Your task to perform on an android device: Open Reddit.com Image 0: 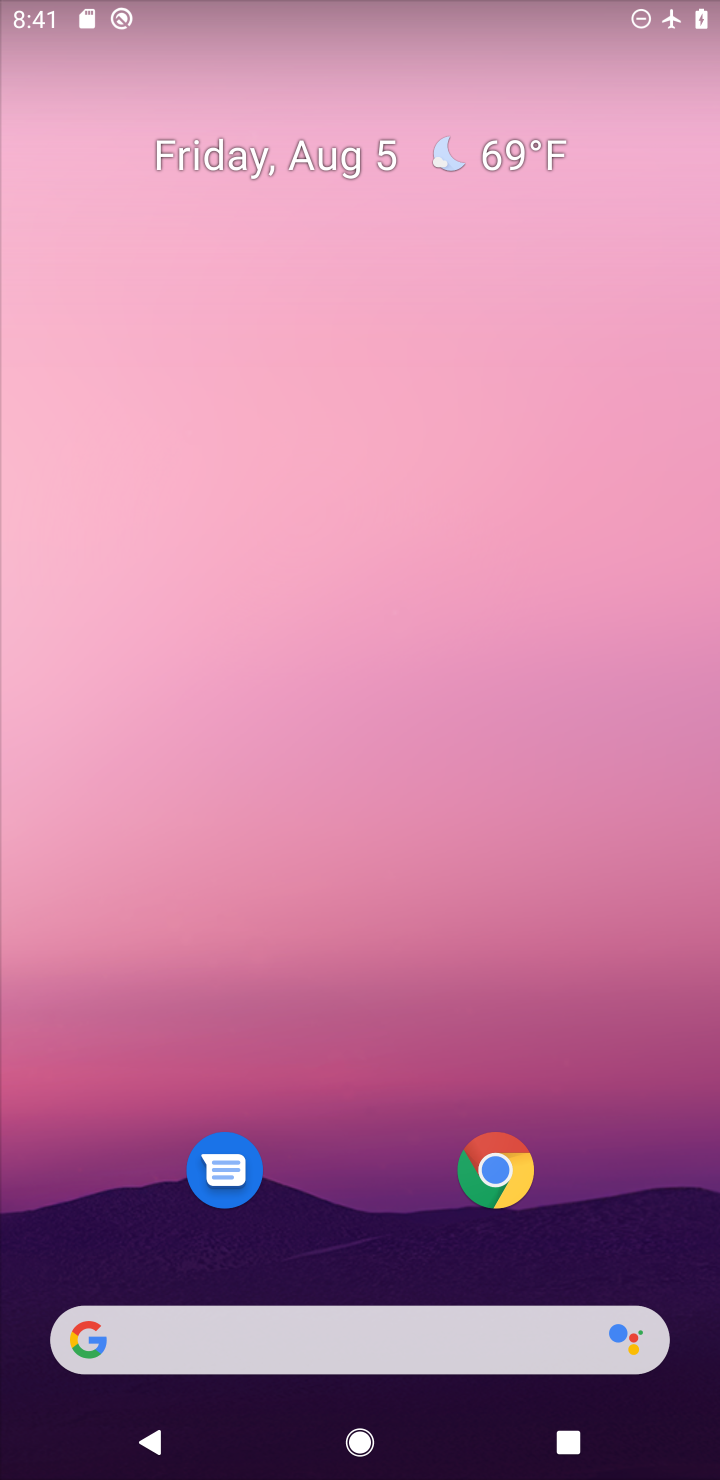
Step 0: click (500, 1172)
Your task to perform on an android device: Open Reddit.com Image 1: 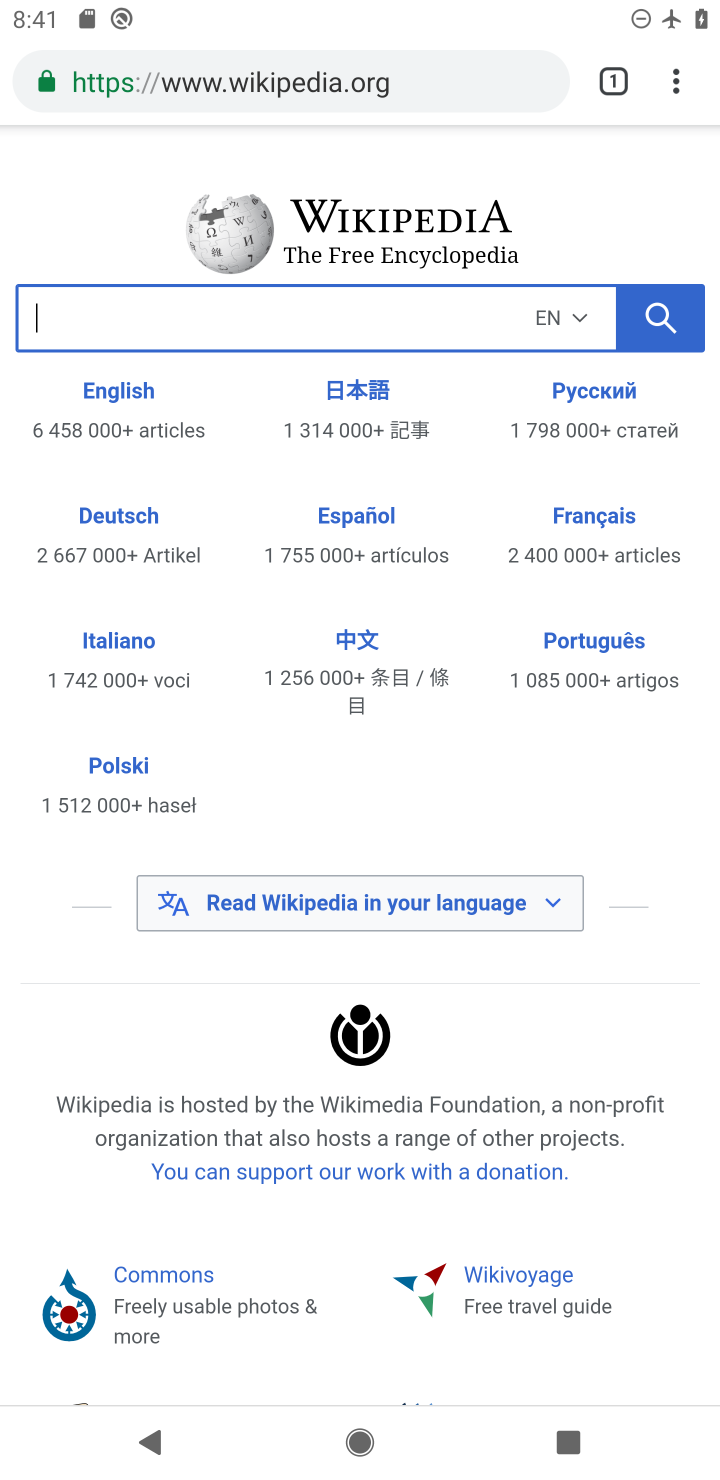
Step 1: click (445, 84)
Your task to perform on an android device: Open Reddit.com Image 2: 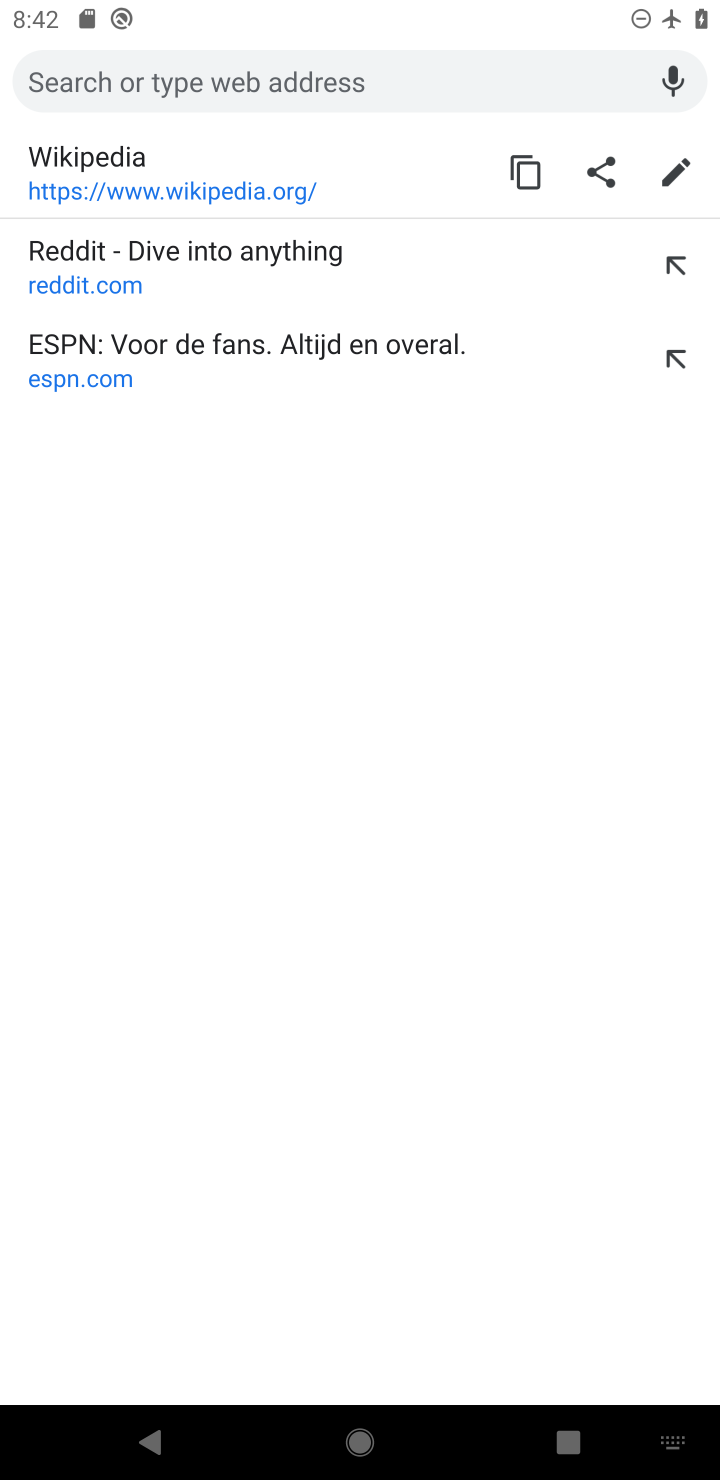
Step 2: type "reddit.com"
Your task to perform on an android device: Open Reddit.com Image 3: 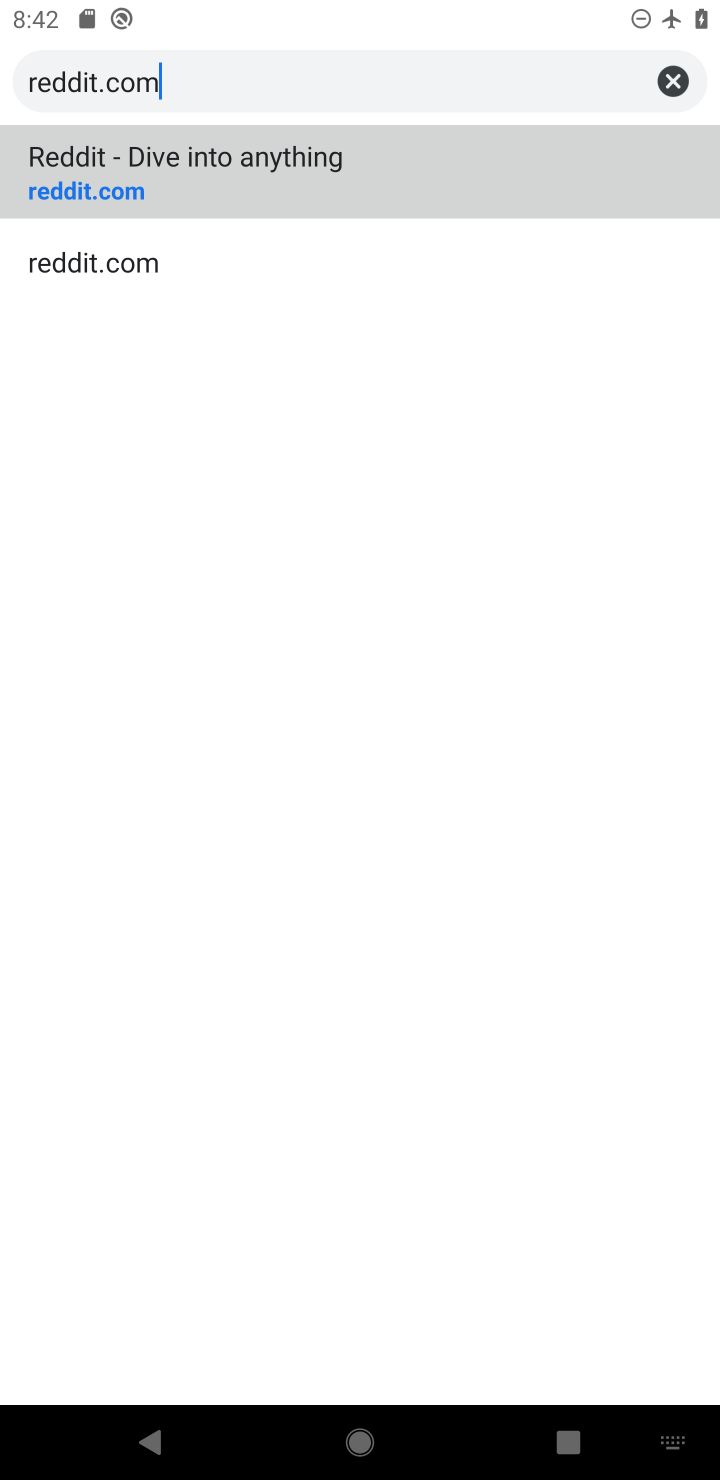
Step 3: click (155, 157)
Your task to perform on an android device: Open Reddit.com Image 4: 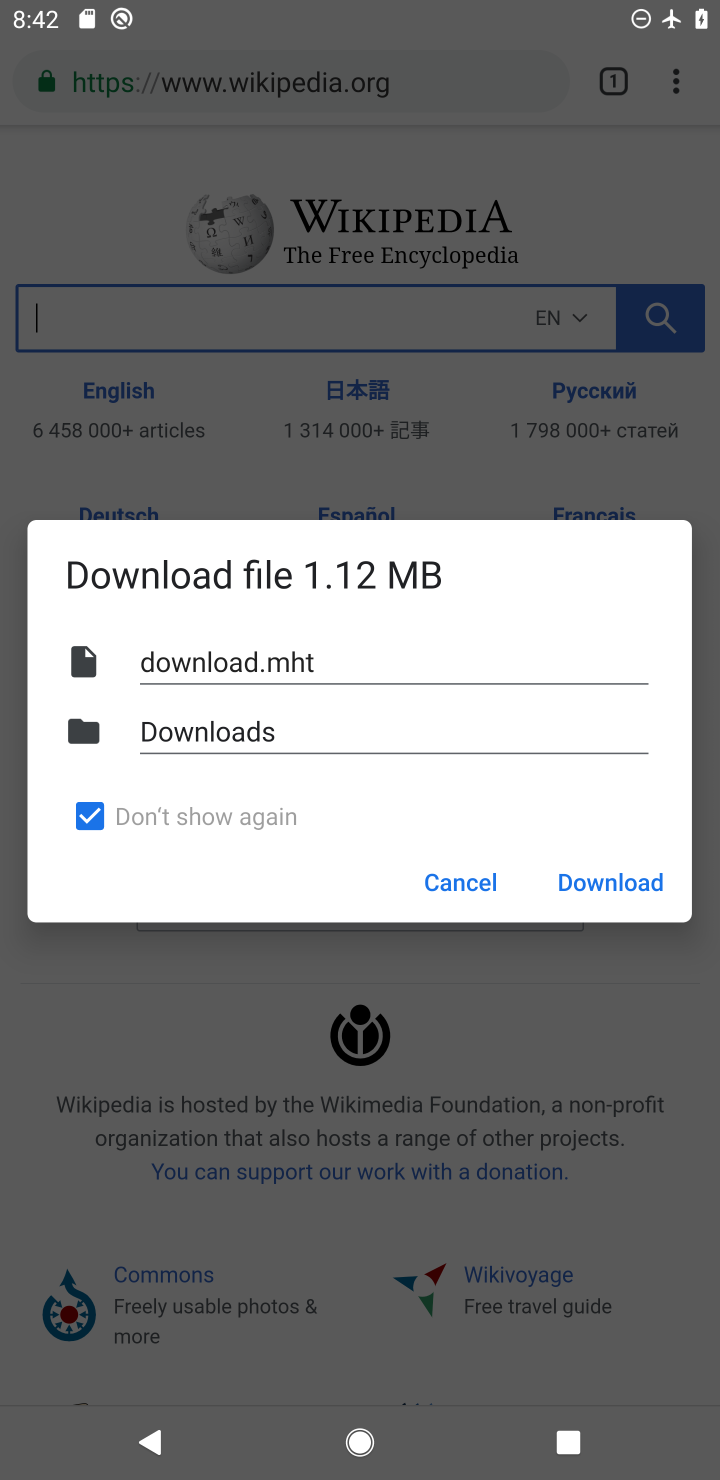
Step 4: click (459, 882)
Your task to perform on an android device: Open Reddit.com Image 5: 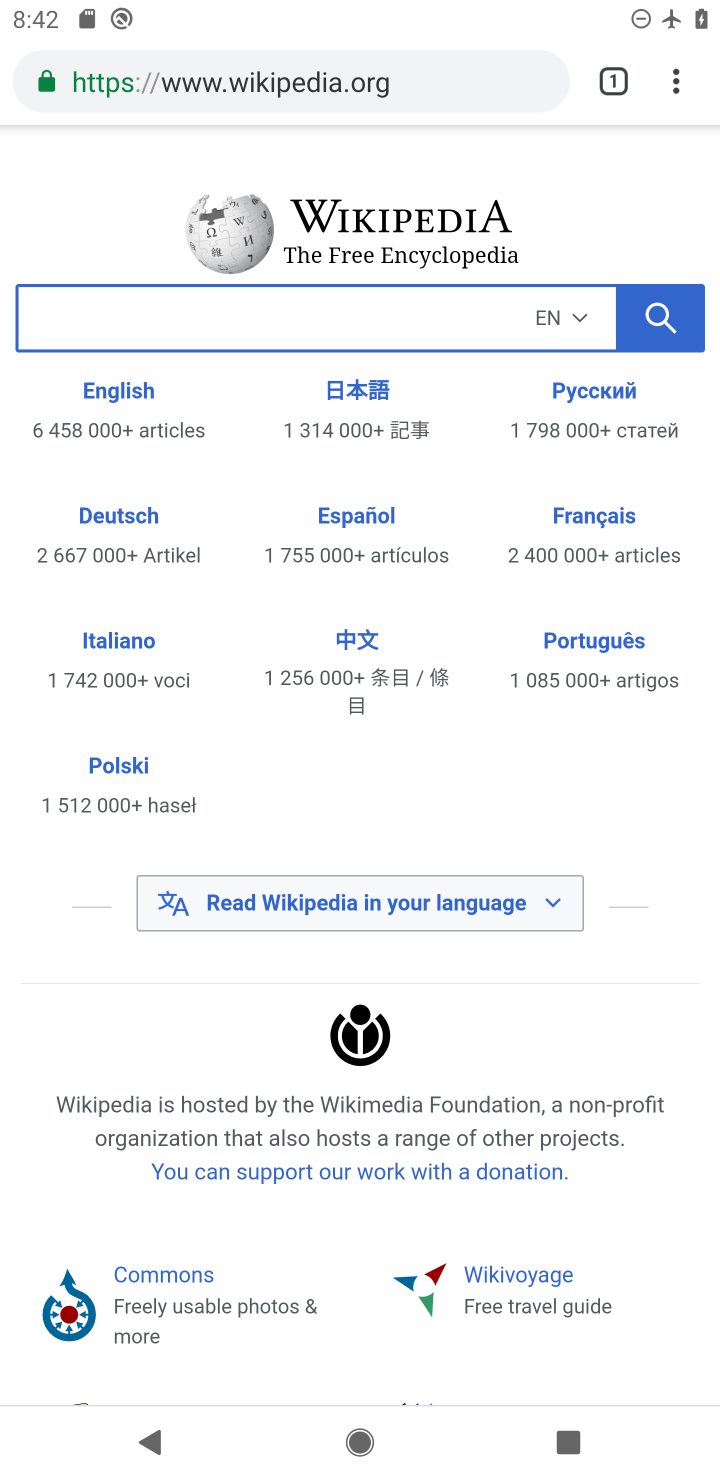
Step 5: click (508, 85)
Your task to perform on an android device: Open Reddit.com Image 6: 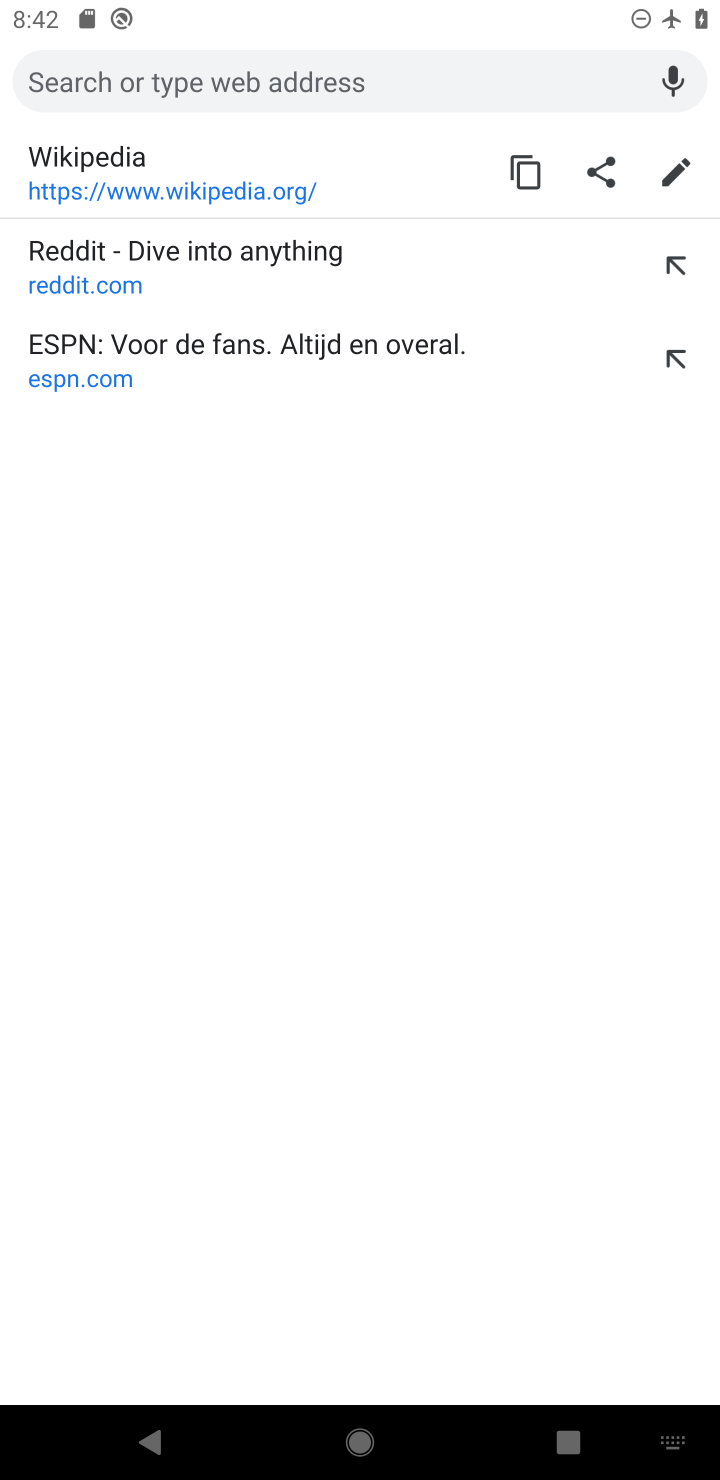
Step 6: type "reddit.com"
Your task to perform on an android device: Open Reddit.com Image 7: 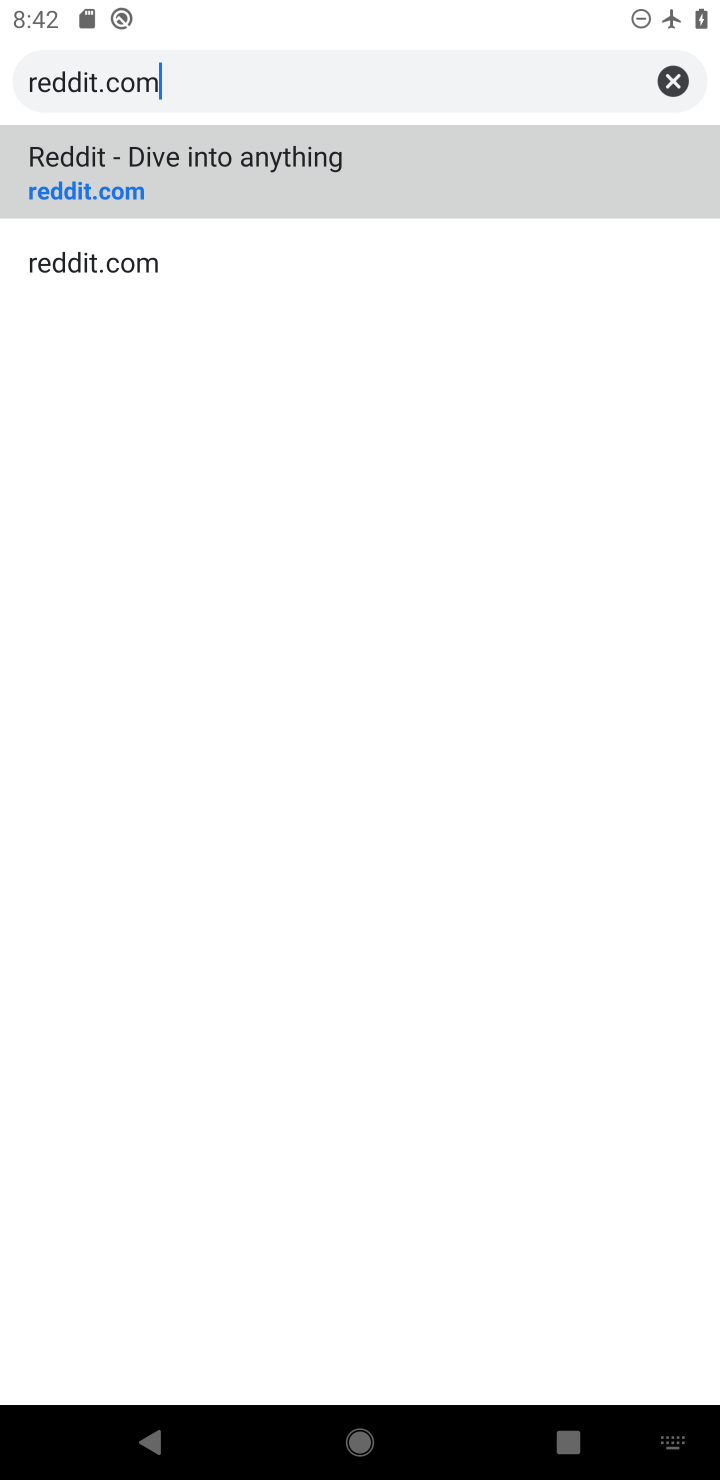
Step 7: click (117, 241)
Your task to perform on an android device: Open Reddit.com Image 8: 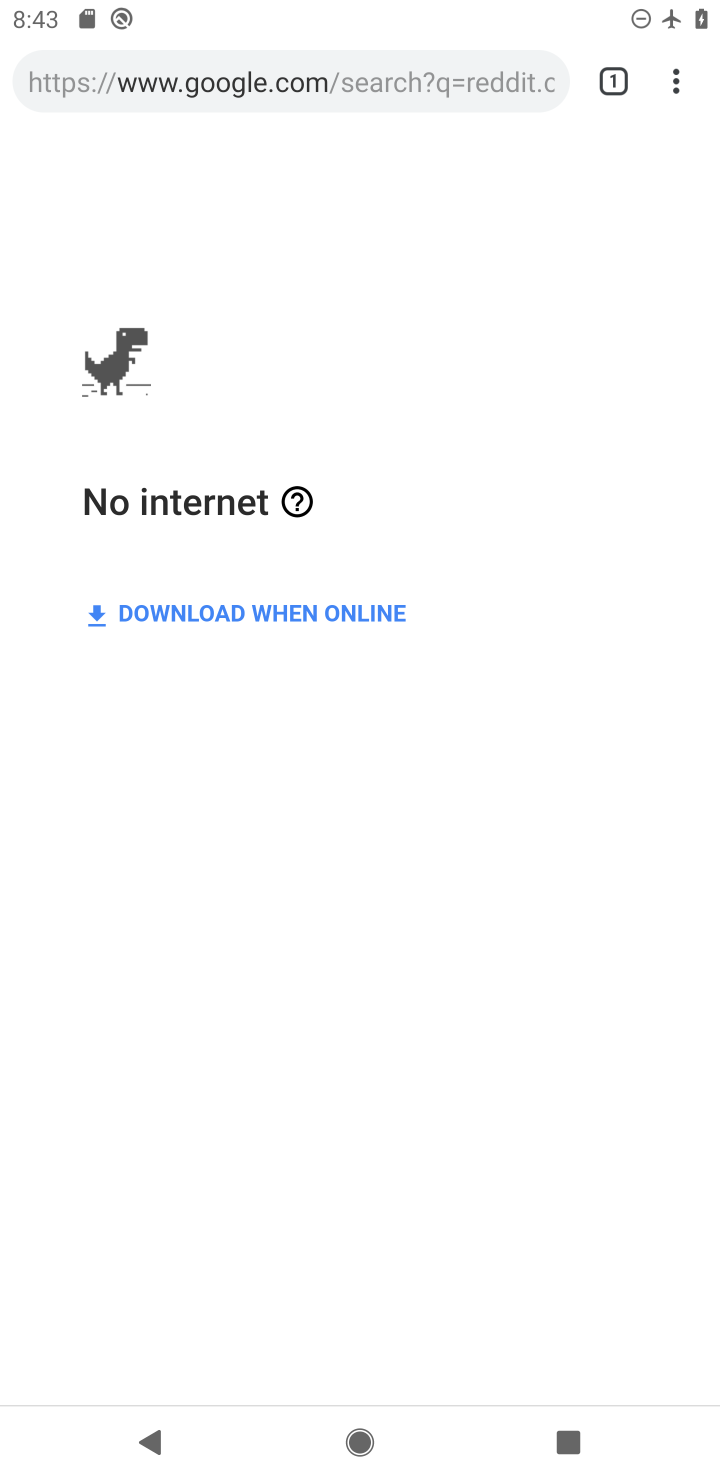
Step 8: task complete